Your task to perform on an android device: turn off smart reply in the gmail app Image 0: 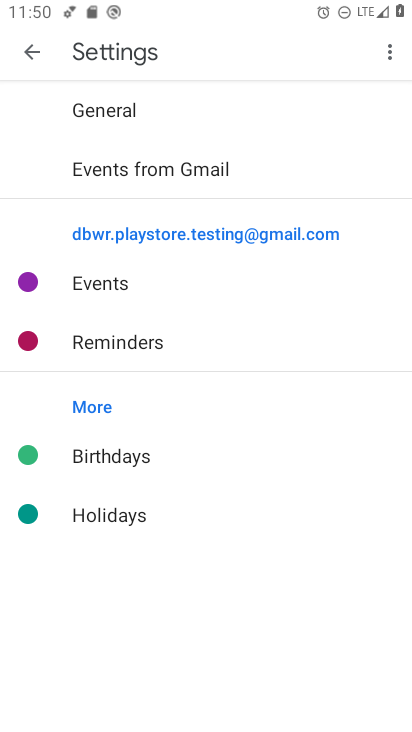
Step 0: press home button
Your task to perform on an android device: turn off smart reply in the gmail app Image 1: 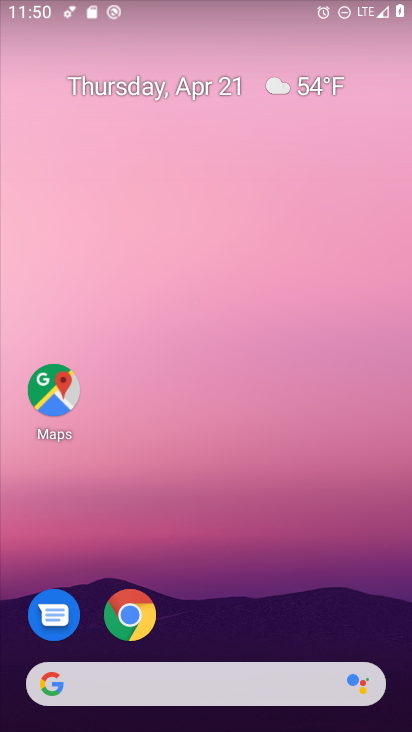
Step 1: drag from (289, 614) to (351, 65)
Your task to perform on an android device: turn off smart reply in the gmail app Image 2: 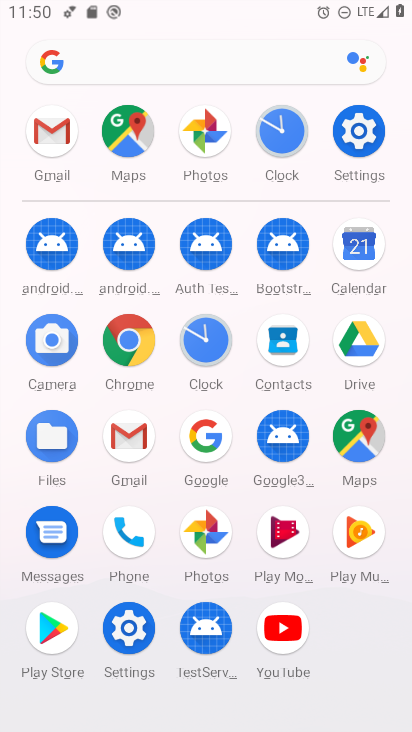
Step 2: click (117, 432)
Your task to perform on an android device: turn off smart reply in the gmail app Image 3: 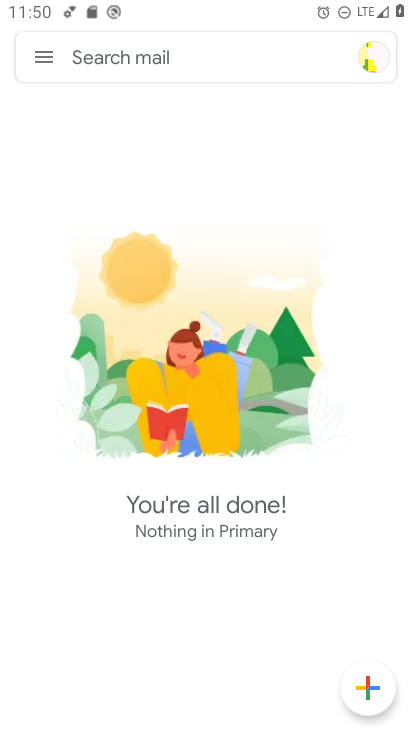
Step 3: click (39, 62)
Your task to perform on an android device: turn off smart reply in the gmail app Image 4: 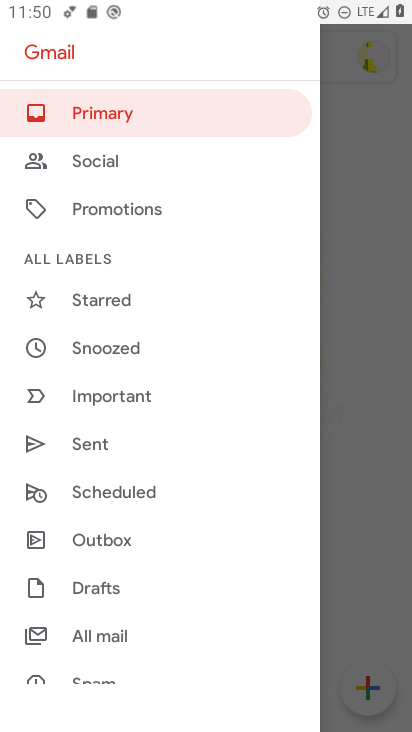
Step 4: drag from (149, 565) to (150, 483)
Your task to perform on an android device: turn off smart reply in the gmail app Image 5: 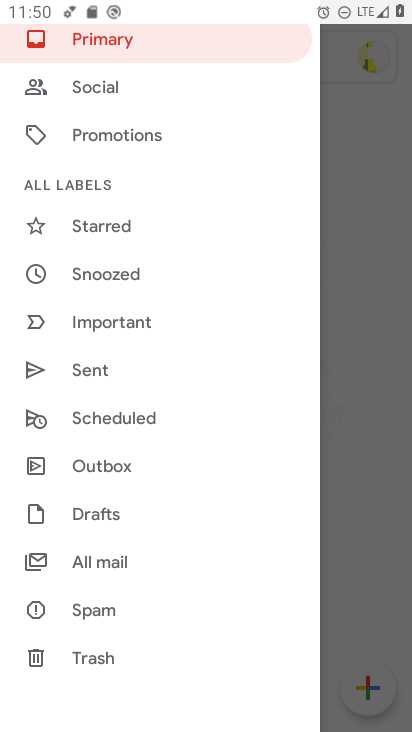
Step 5: drag from (129, 566) to (129, 498)
Your task to perform on an android device: turn off smart reply in the gmail app Image 6: 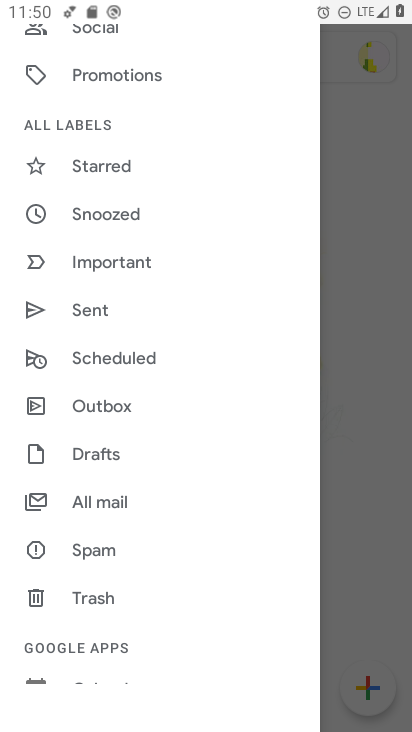
Step 6: drag from (146, 570) to (148, 505)
Your task to perform on an android device: turn off smart reply in the gmail app Image 7: 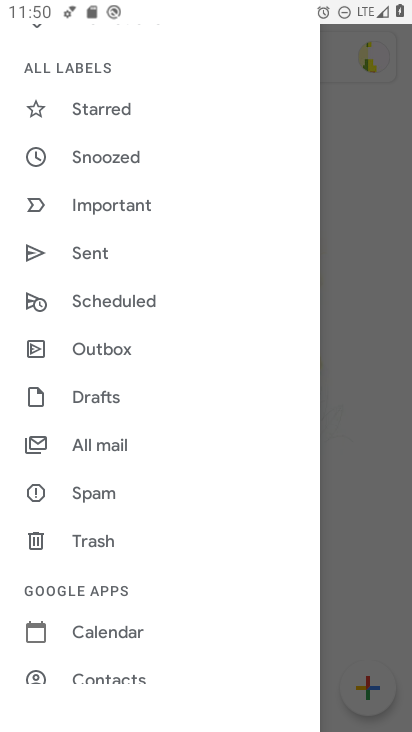
Step 7: drag from (69, 631) to (83, 554)
Your task to perform on an android device: turn off smart reply in the gmail app Image 8: 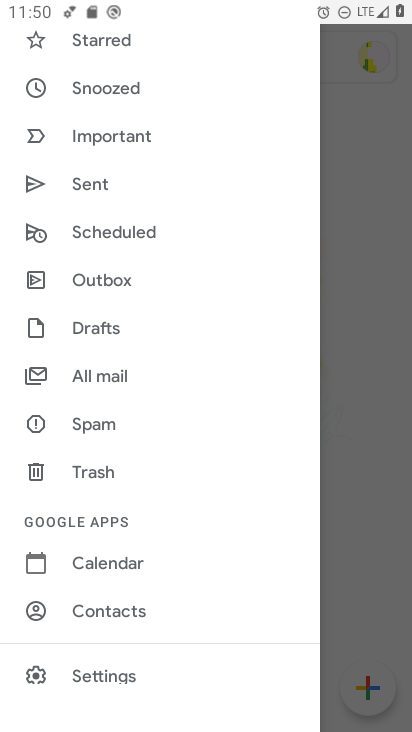
Step 8: drag from (86, 614) to (100, 531)
Your task to perform on an android device: turn off smart reply in the gmail app Image 9: 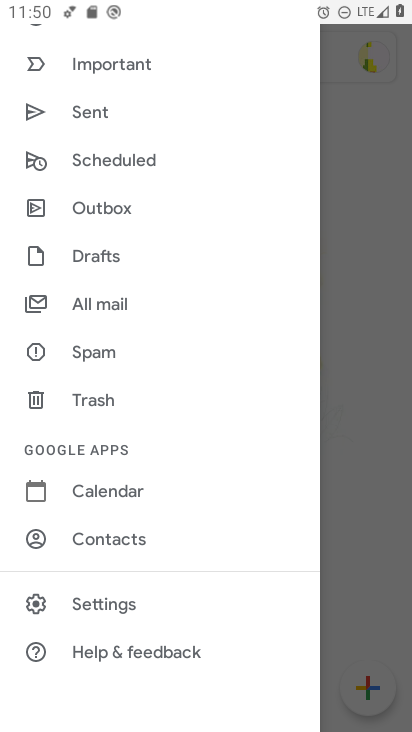
Step 9: click (101, 612)
Your task to perform on an android device: turn off smart reply in the gmail app Image 10: 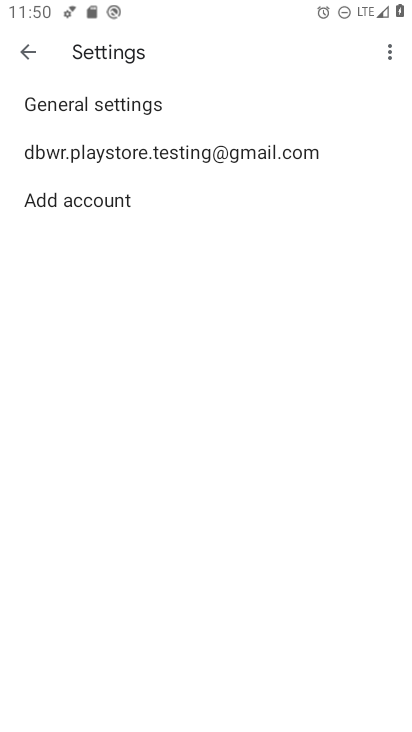
Step 10: click (137, 160)
Your task to perform on an android device: turn off smart reply in the gmail app Image 11: 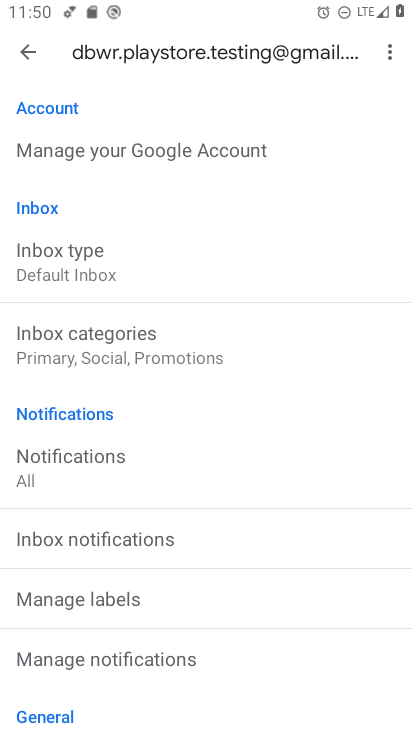
Step 11: drag from (132, 580) to (140, 490)
Your task to perform on an android device: turn off smart reply in the gmail app Image 12: 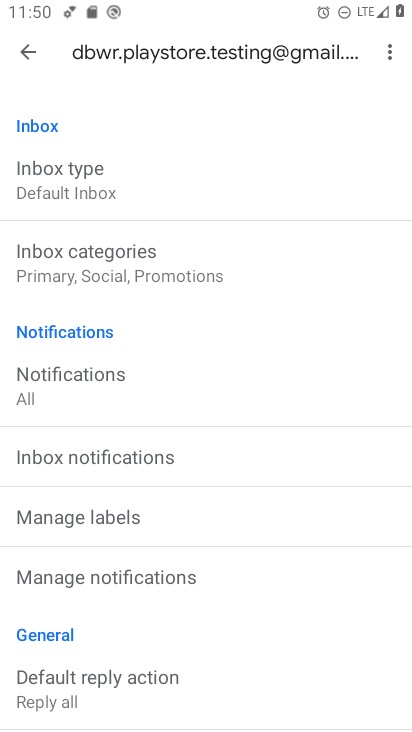
Step 12: drag from (164, 603) to (172, 531)
Your task to perform on an android device: turn off smart reply in the gmail app Image 13: 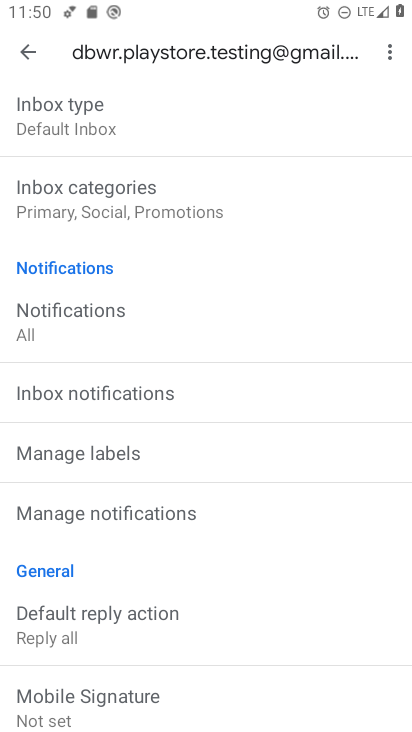
Step 13: drag from (174, 606) to (181, 537)
Your task to perform on an android device: turn off smart reply in the gmail app Image 14: 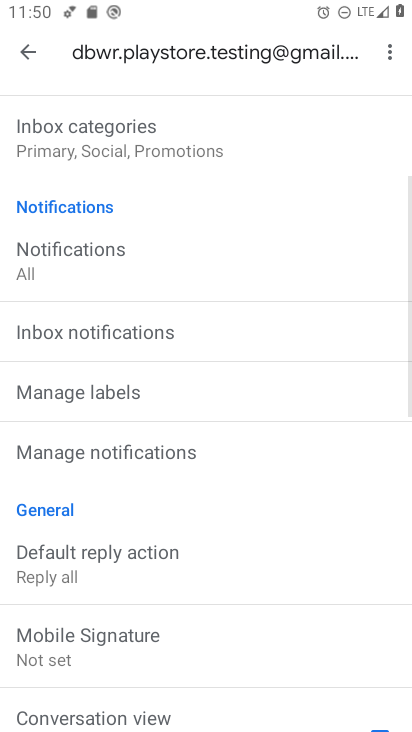
Step 14: drag from (204, 642) to (197, 567)
Your task to perform on an android device: turn off smart reply in the gmail app Image 15: 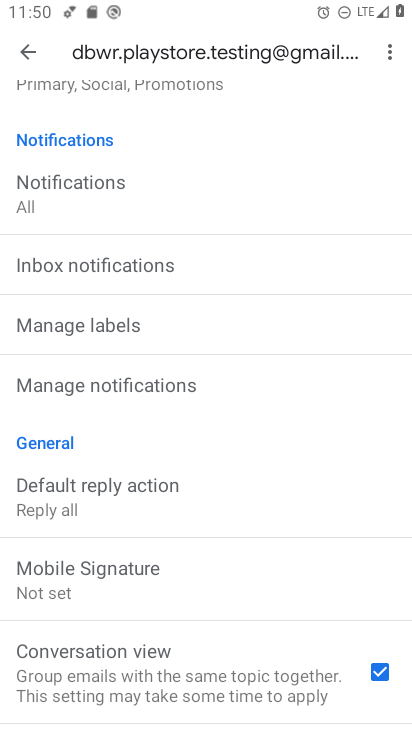
Step 15: drag from (191, 634) to (181, 570)
Your task to perform on an android device: turn off smart reply in the gmail app Image 16: 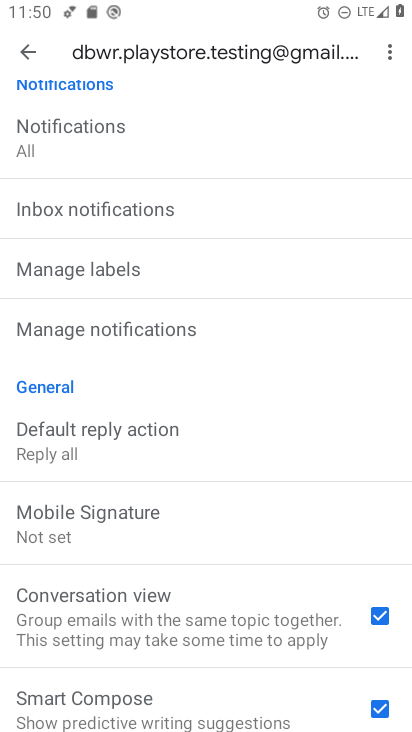
Step 16: drag from (162, 622) to (189, 561)
Your task to perform on an android device: turn off smart reply in the gmail app Image 17: 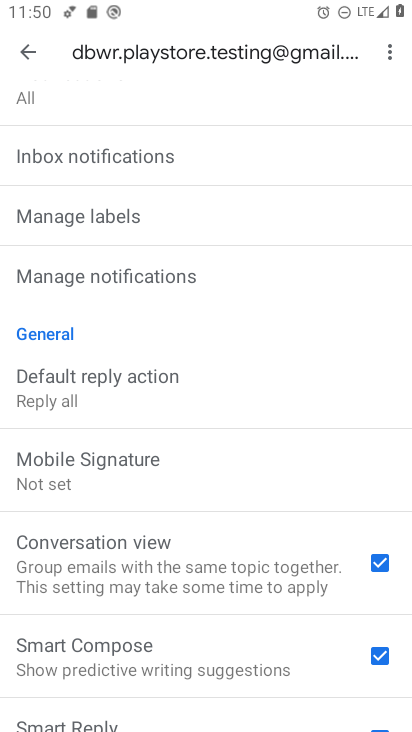
Step 17: drag from (179, 618) to (192, 556)
Your task to perform on an android device: turn off smart reply in the gmail app Image 18: 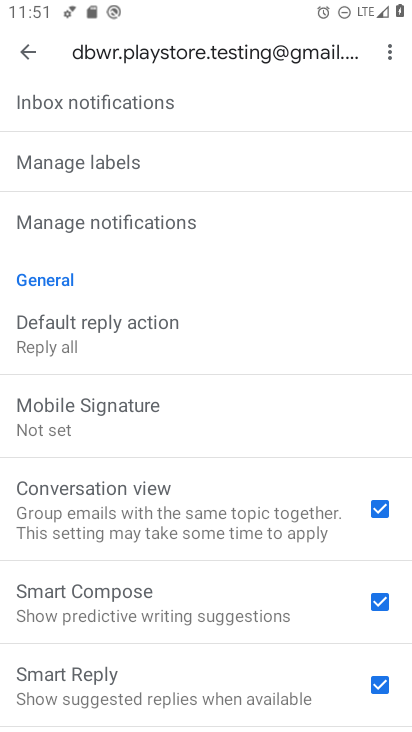
Step 18: click (373, 695)
Your task to perform on an android device: turn off smart reply in the gmail app Image 19: 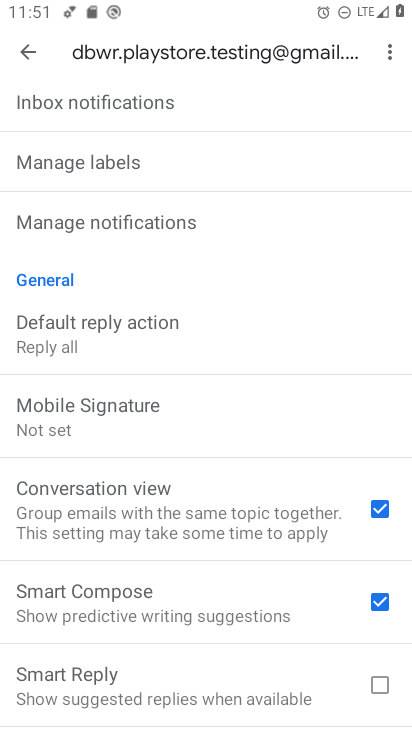
Step 19: task complete